Your task to perform on an android device: Go to Google Image 0: 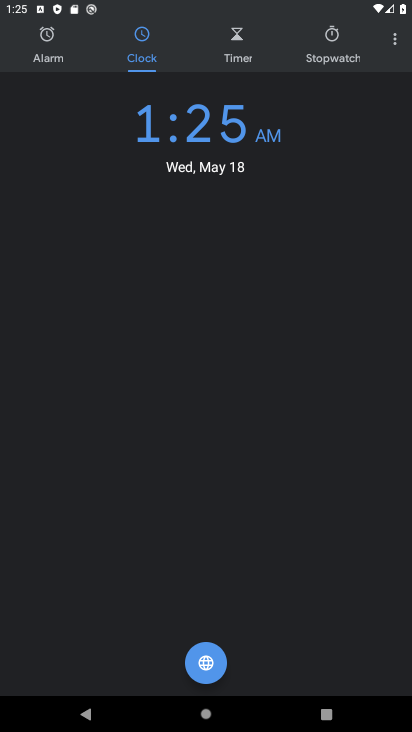
Step 0: press home button
Your task to perform on an android device: Go to Google Image 1: 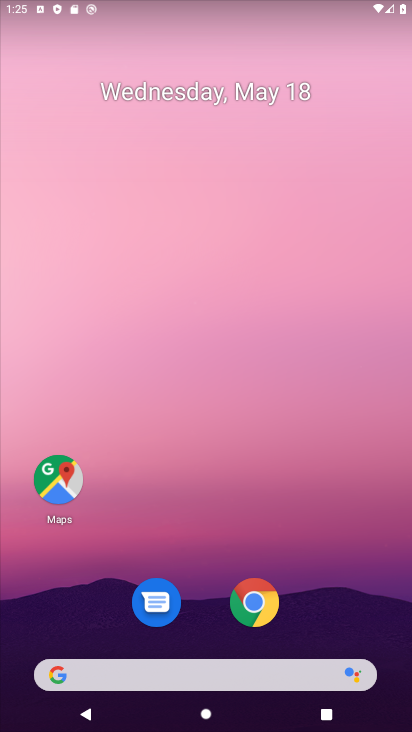
Step 1: drag from (210, 521) to (174, 113)
Your task to perform on an android device: Go to Google Image 2: 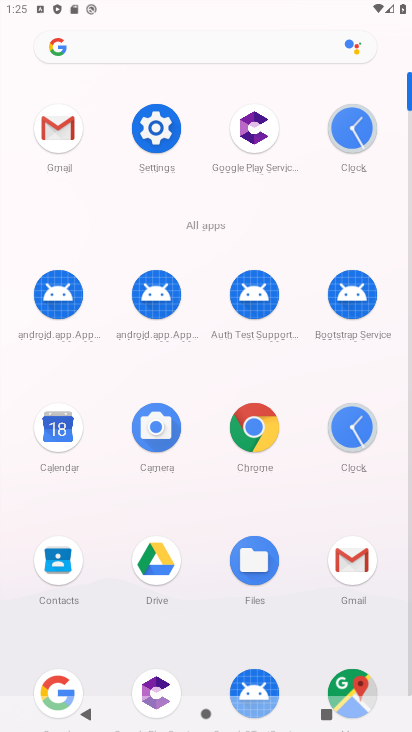
Step 2: click (62, 680)
Your task to perform on an android device: Go to Google Image 3: 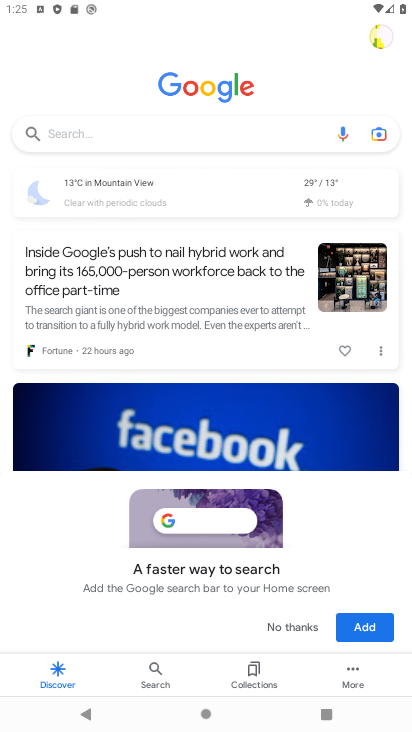
Step 3: task complete